Your task to perform on an android device: Search for Mexican restaurants on Maps Image 0: 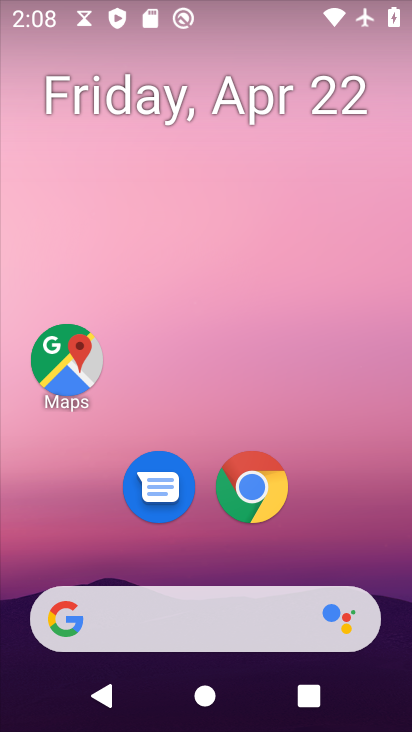
Step 0: drag from (183, 630) to (263, 74)
Your task to perform on an android device: Search for Mexican restaurants on Maps Image 1: 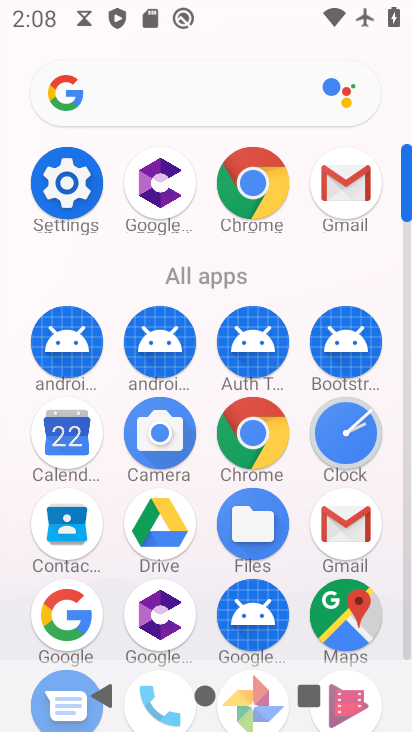
Step 1: click (355, 628)
Your task to perform on an android device: Search for Mexican restaurants on Maps Image 2: 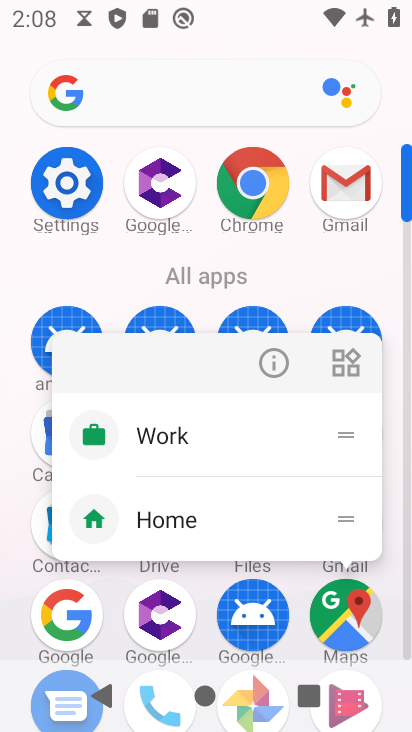
Step 2: click (338, 627)
Your task to perform on an android device: Search for Mexican restaurants on Maps Image 3: 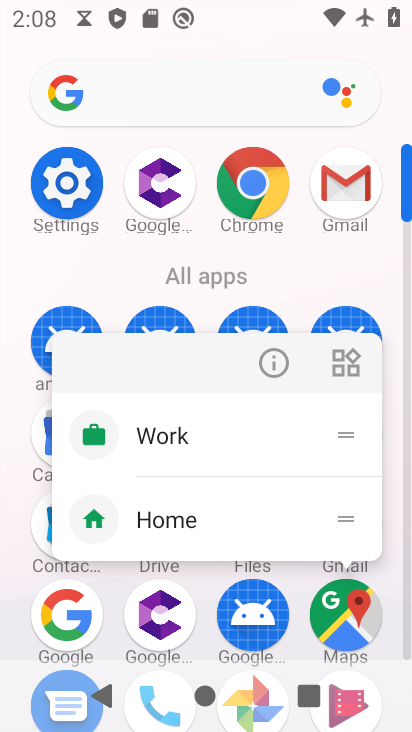
Step 3: click (340, 625)
Your task to perform on an android device: Search for Mexican restaurants on Maps Image 4: 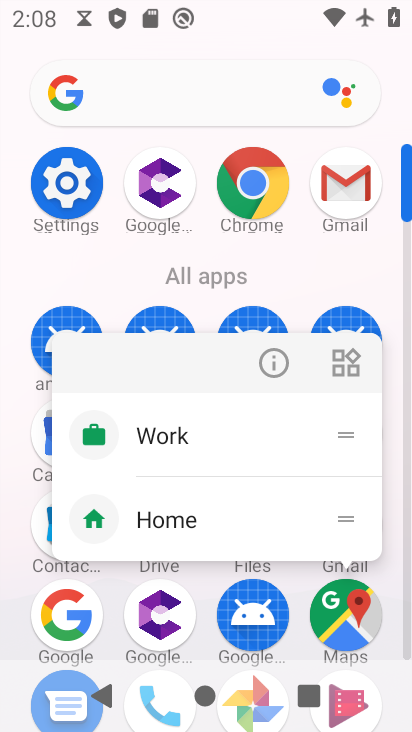
Step 4: click (341, 627)
Your task to perform on an android device: Search for Mexican restaurants on Maps Image 5: 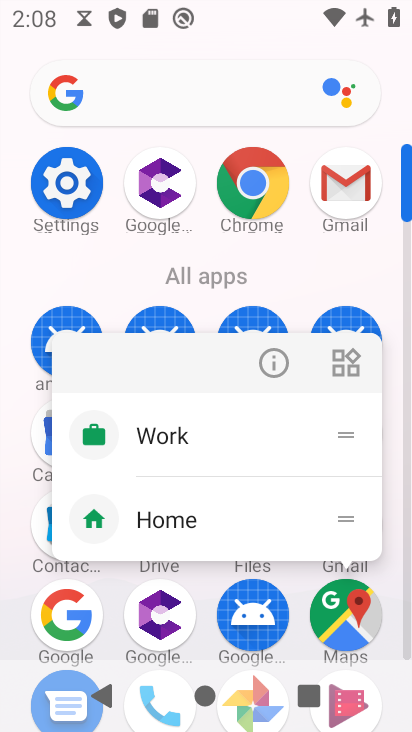
Step 5: click (340, 633)
Your task to perform on an android device: Search for Mexican restaurants on Maps Image 6: 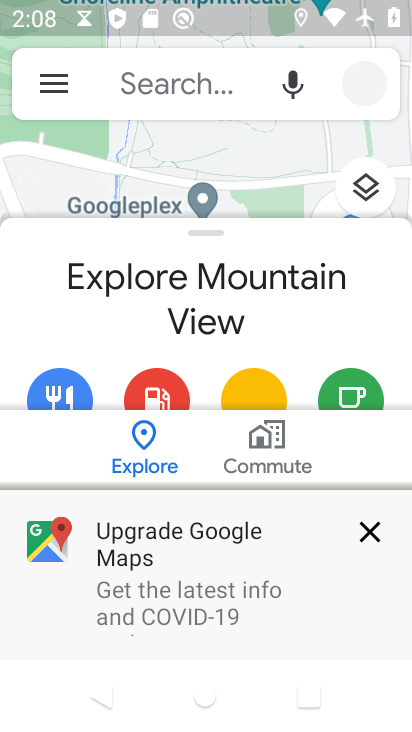
Step 6: click (202, 85)
Your task to perform on an android device: Search for Mexican restaurants on Maps Image 7: 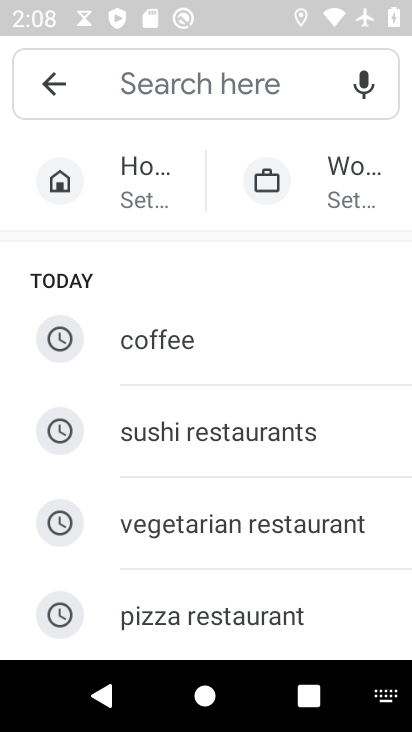
Step 7: drag from (184, 572) to (355, 201)
Your task to perform on an android device: Search for Mexican restaurants on Maps Image 8: 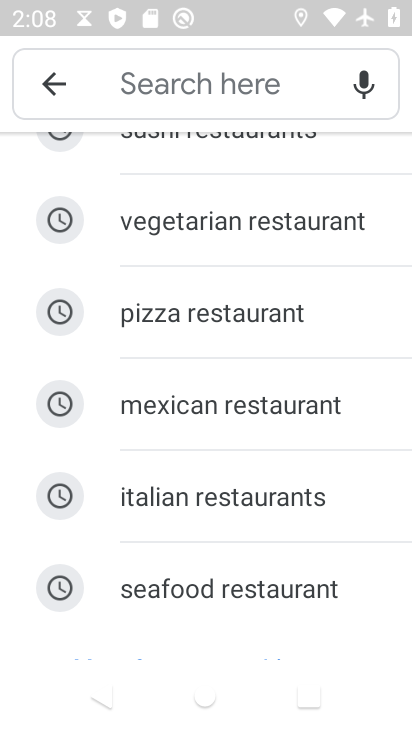
Step 8: click (209, 396)
Your task to perform on an android device: Search for Mexican restaurants on Maps Image 9: 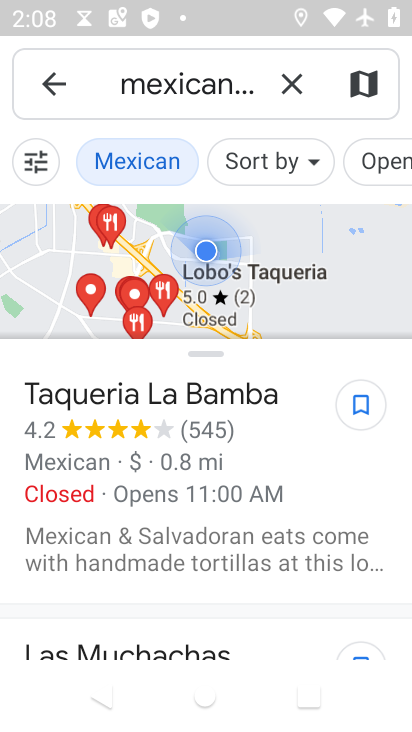
Step 9: task complete